Your task to perform on an android device: turn on the 12-hour format for clock Image 0: 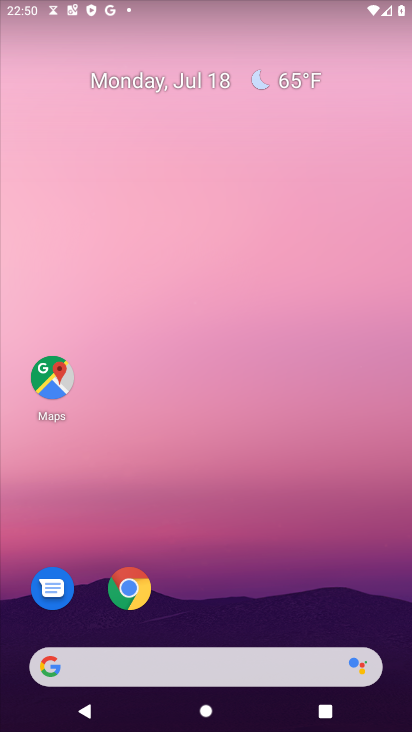
Step 0: drag from (214, 671) to (237, 109)
Your task to perform on an android device: turn on the 12-hour format for clock Image 1: 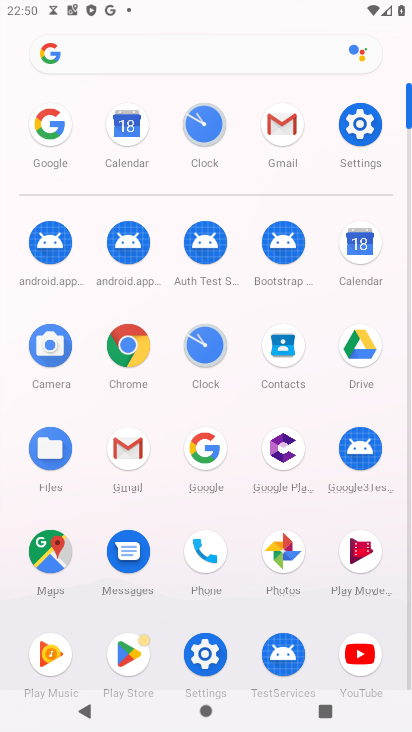
Step 1: click (206, 347)
Your task to perform on an android device: turn on the 12-hour format for clock Image 2: 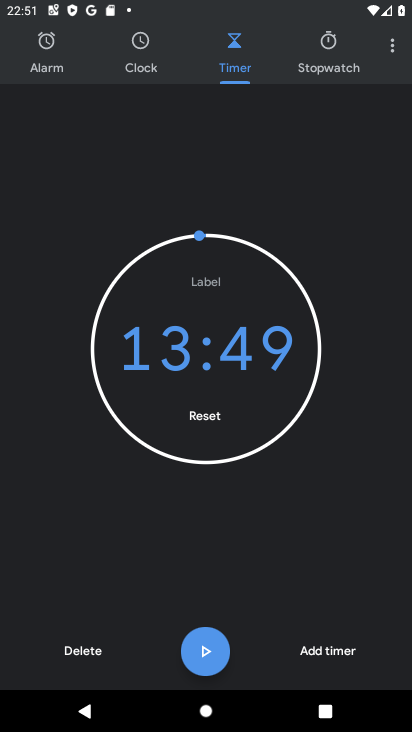
Step 2: click (393, 44)
Your task to perform on an android device: turn on the 12-hour format for clock Image 3: 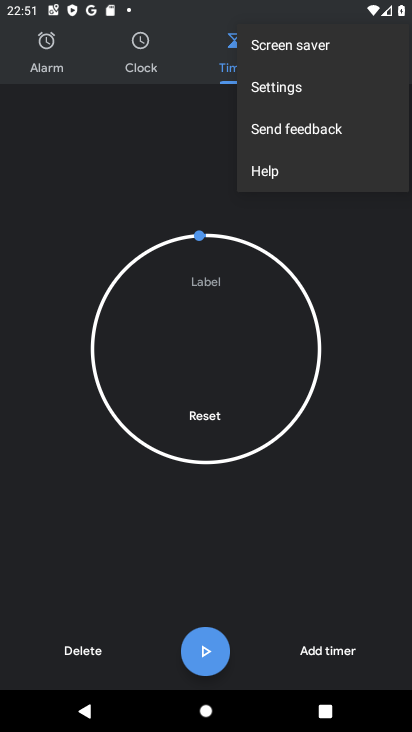
Step 3: click (300, 92)
Your task to perform on an android device: turn on the 12-hour format for clock Image 4: 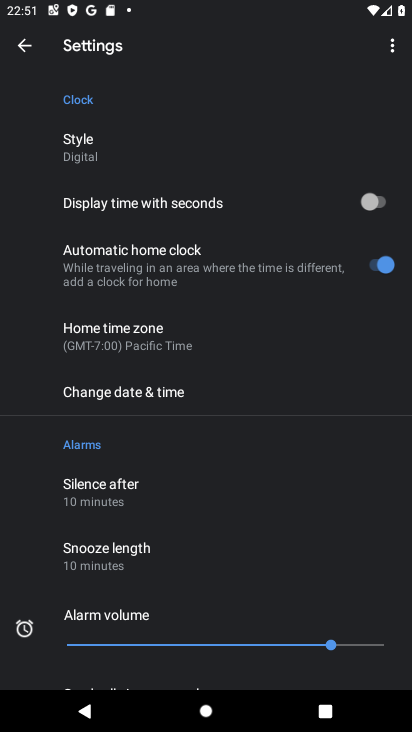
Step 4: click (166, 390)
Your task to perform on an android device: turn on the 12-hour format for clock Image 5: 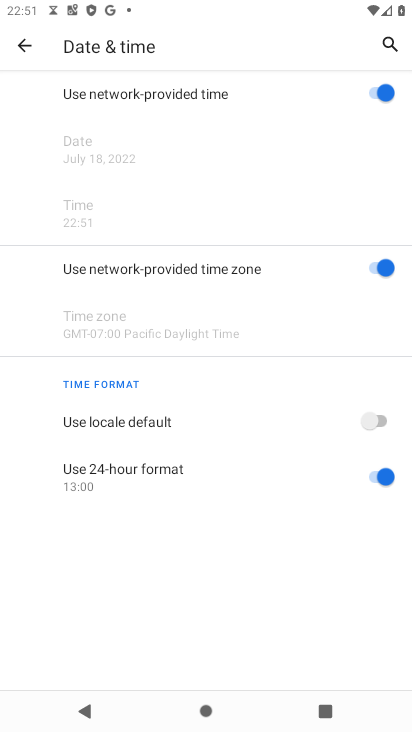
Step 5: task complete